Your task to perform on an android device: change the clock style Image 0: 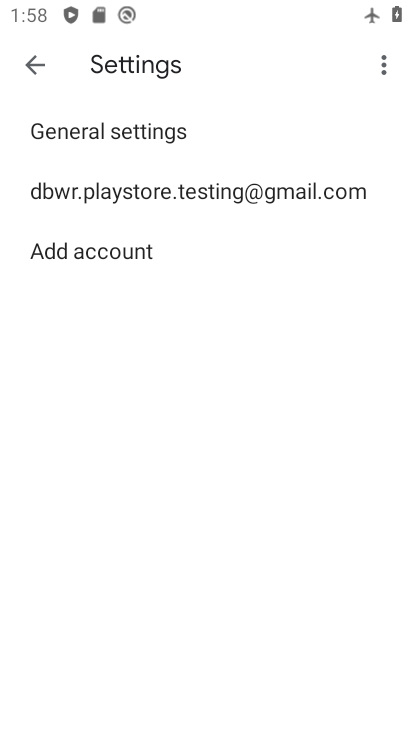
Step 0: press home button
Your task to perform on an android device: change the clock style Image 1: 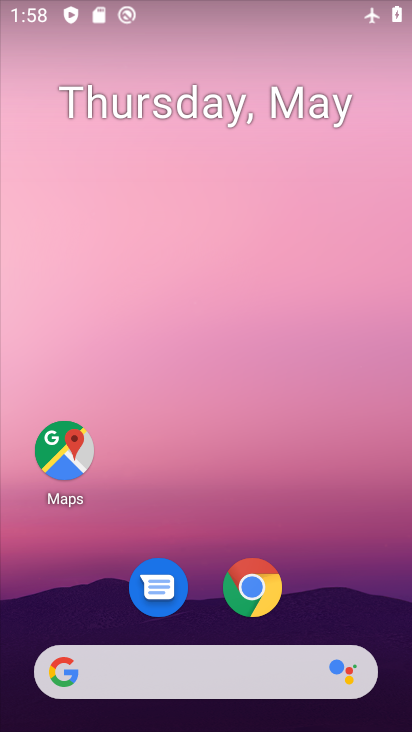
Step 1: drag from (338, 562) to (245, 195)
Your task to perform on an android device: change the clock style Image 2: 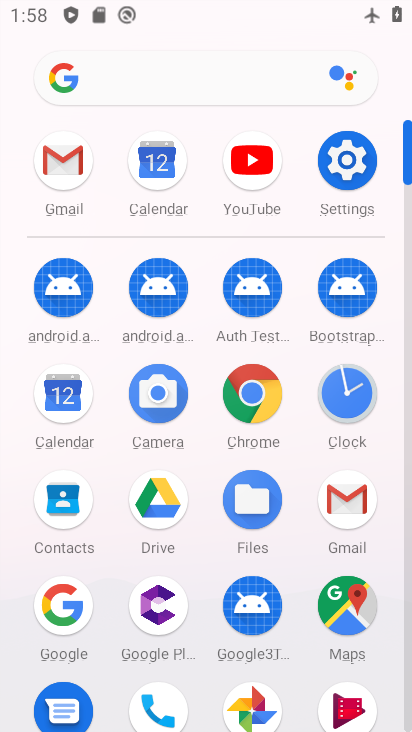
Step 2: click (338, 412)
Your task to perform on an android device: change the clock style Image 3: 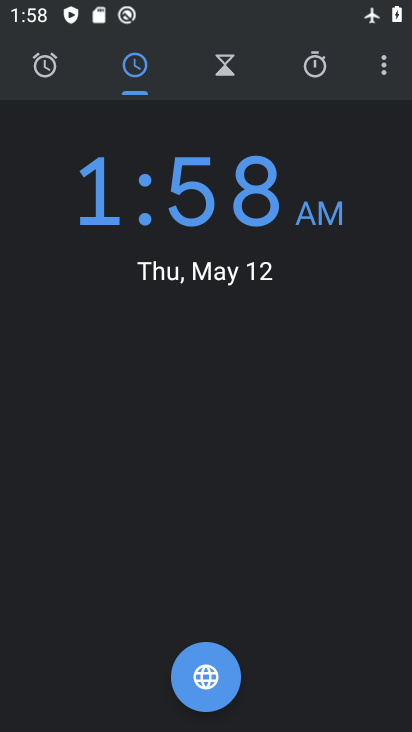
Step 3: click (382, 67)
Your task to perform on an android device: change the clock style Image 4: 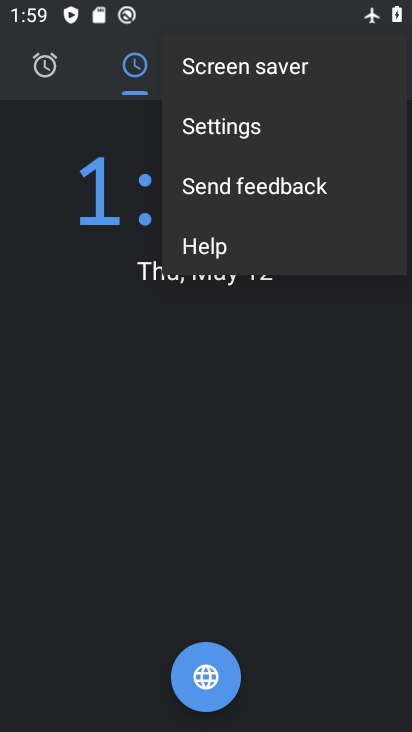
Step 4: click (226, 125)
Your task to perform on an android device: change the clock style Image 5: 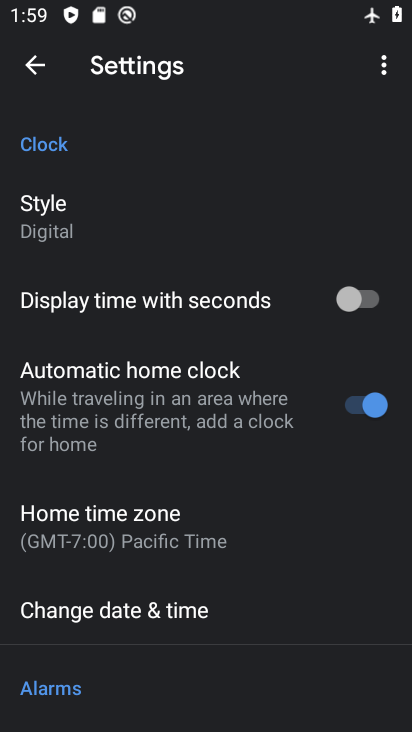
Step 5: click (39, 213)
Your task to perform on an android device: change the clock style Image 6: 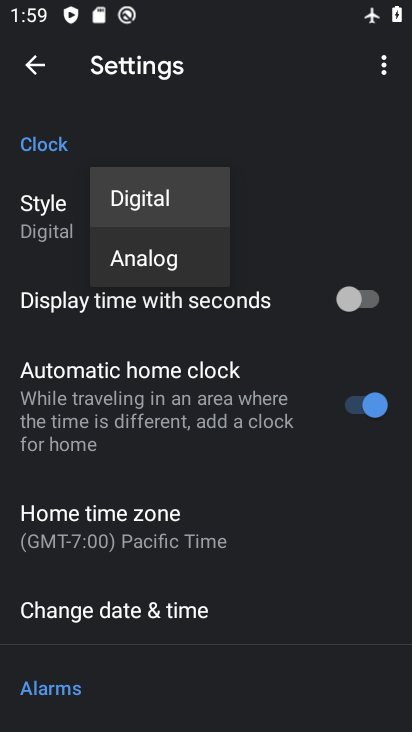
Step 6: click (135, 247)
Your task to perform on an android device: change the clock style Image 7: 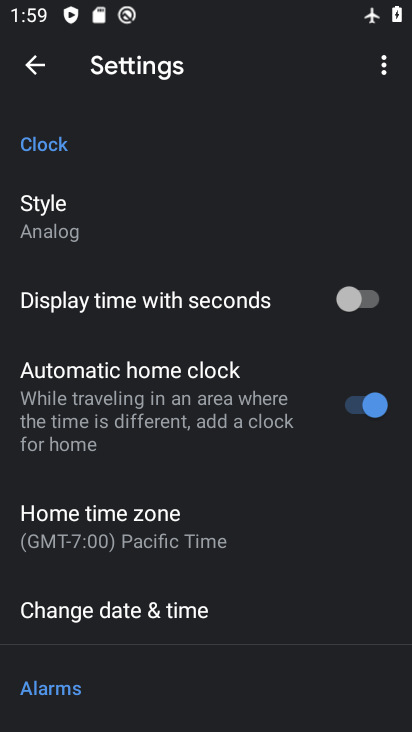
Step 7: task complete